Your task to perform on an android device: Add "macbook pro 15 inch" to the cart on costco.com, then select checkout. Image 0: 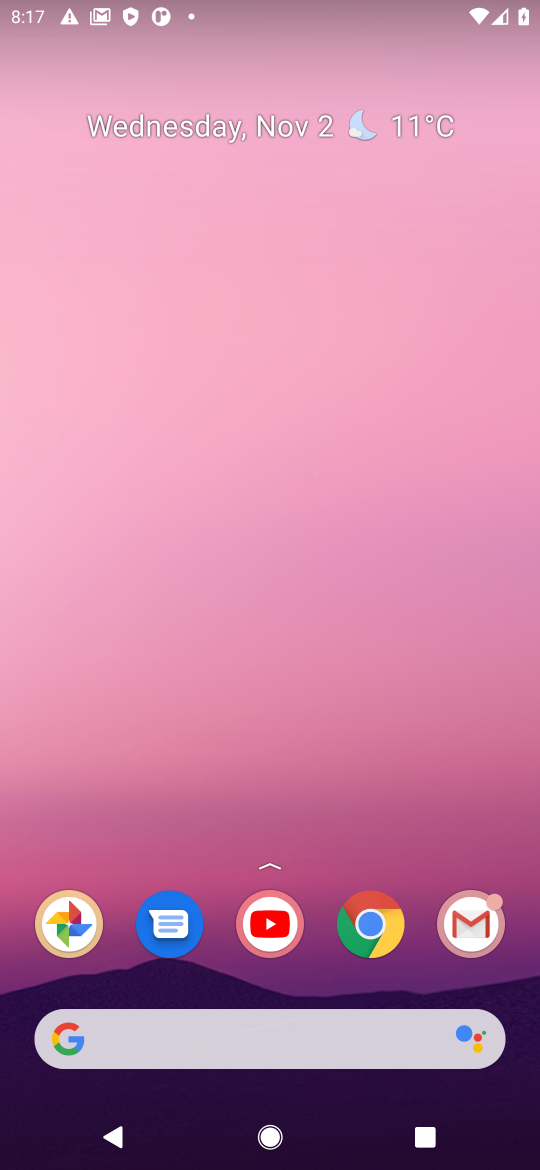
Step 0: press home button
Your task to perform on an android device: Add "macbook pro 15 inch" to the cart on costco.com, then select checkout. Image 1: 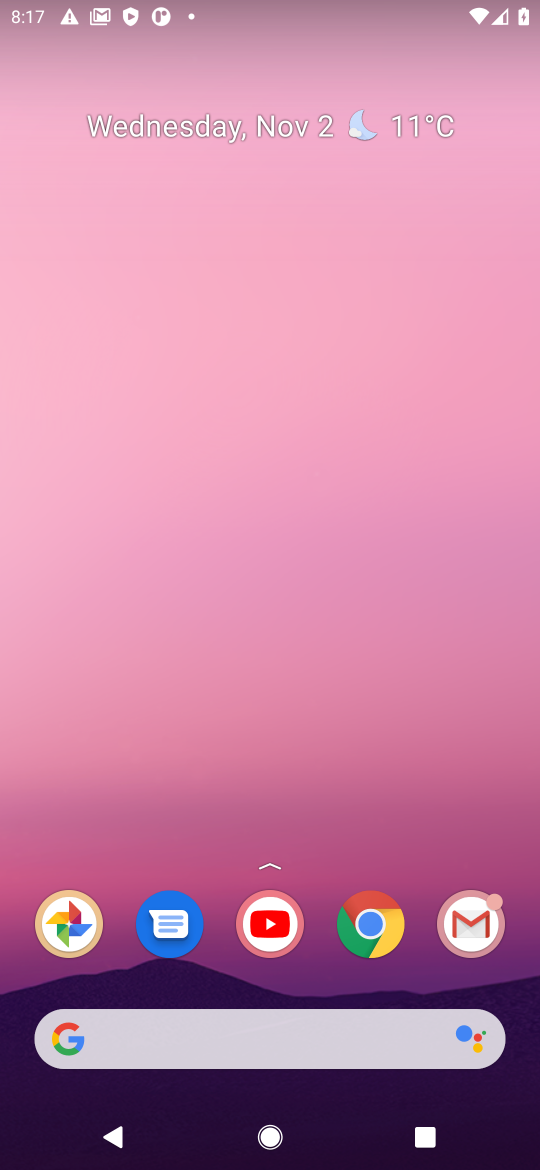
Step 1: click (380, 923)
Your task to perform on an android device: Add "macbook pro 15 inch" to the cart on costco.com, then select checkout. Image 2: 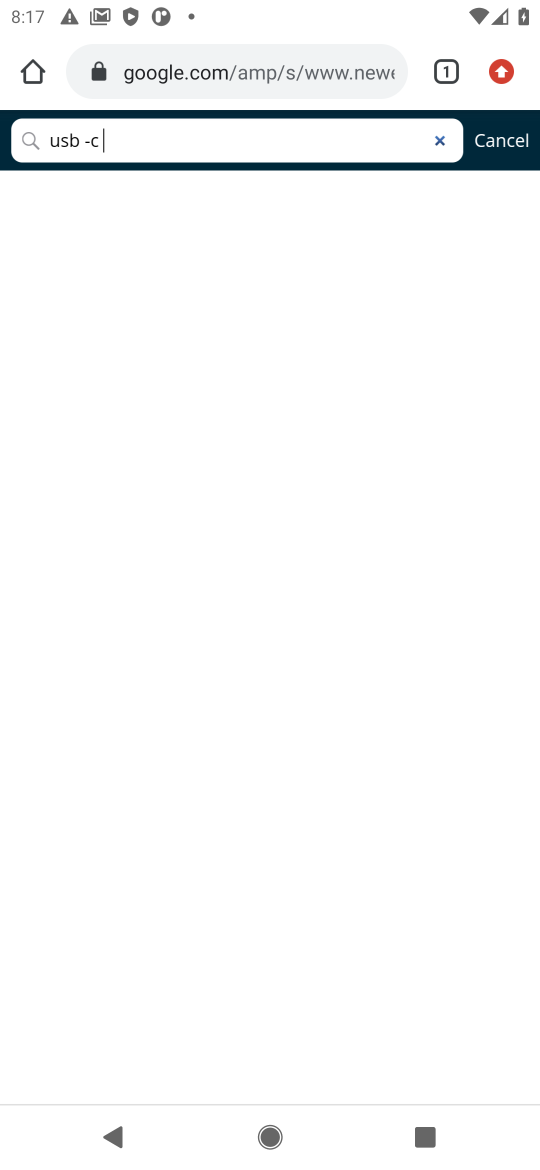
Step 2: click (221, 66)
Your task to perform on an android device: Add "macbook pro 15 inch" to the cart on costco.com, then select checkout. Image 3: 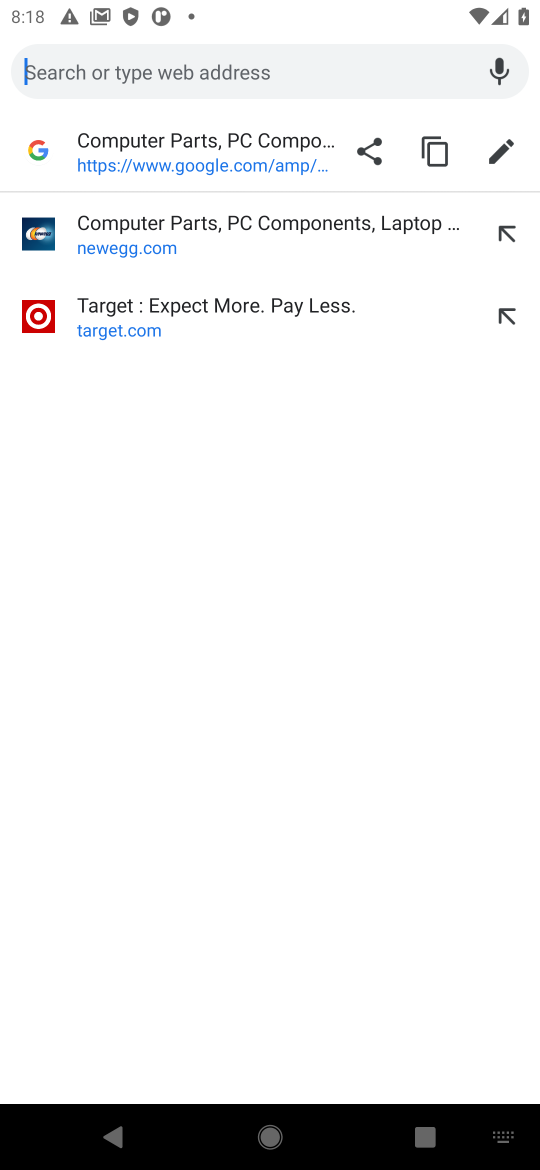
Step 3: type "costco"
Your task to perform on an android device: Add "macbook pro 15 inch" to the cart on costco.com, then select checkout. Image 4: 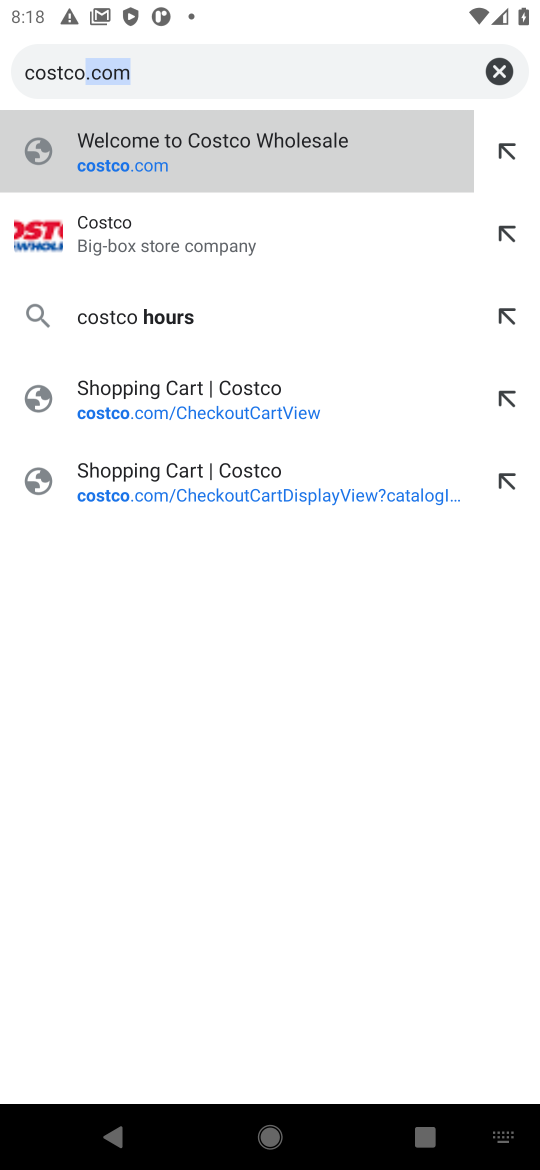
Step 4: type ""
Your task to perform on an android device: Add "macbook pro 15 inch" to the cart on costco.com, then select checkout. Image 5: 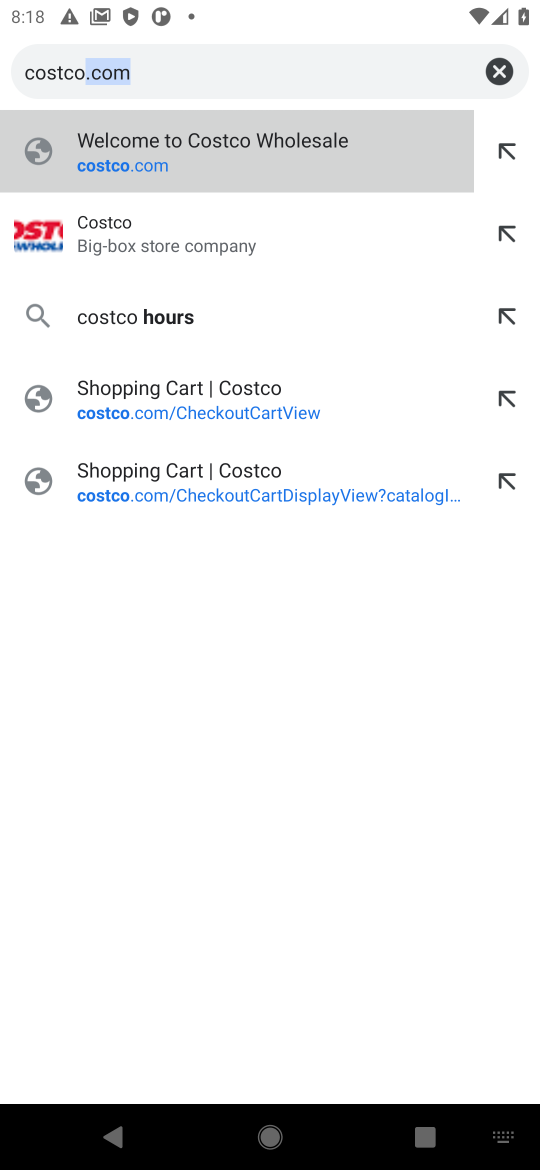
Step 5: click (49, 241)
Your task to perform on an android device: Add "macbook pro 15 inch" to the cart on costco.com, then select checkout. Image 6: 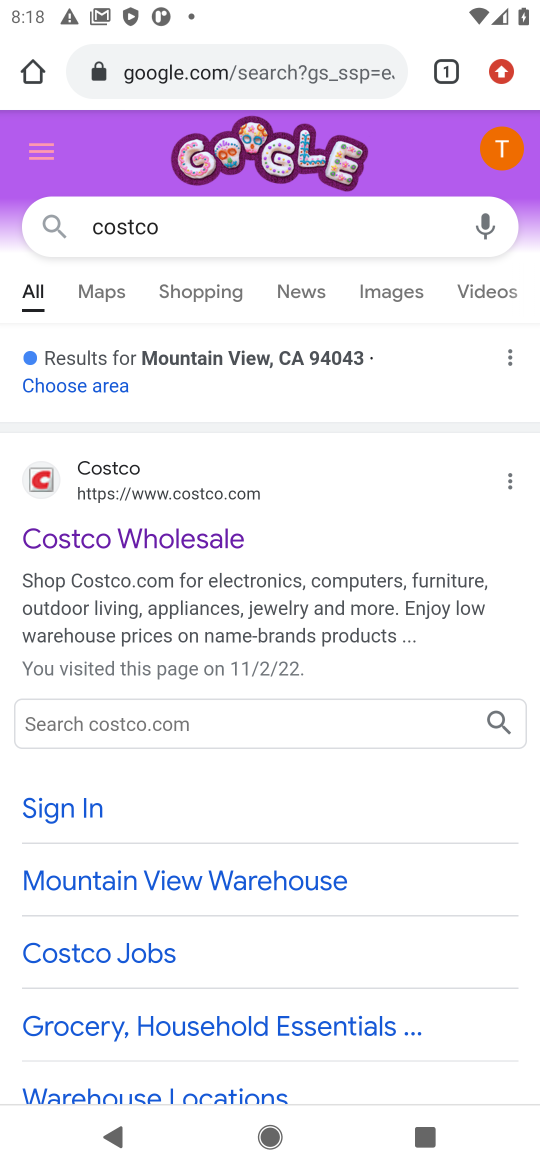
Step 6: click (135, 536)
Your task to perform on an android device: Add "macbook pro 15 inch" to the cart on costco.com, then select checkout. Image 7: 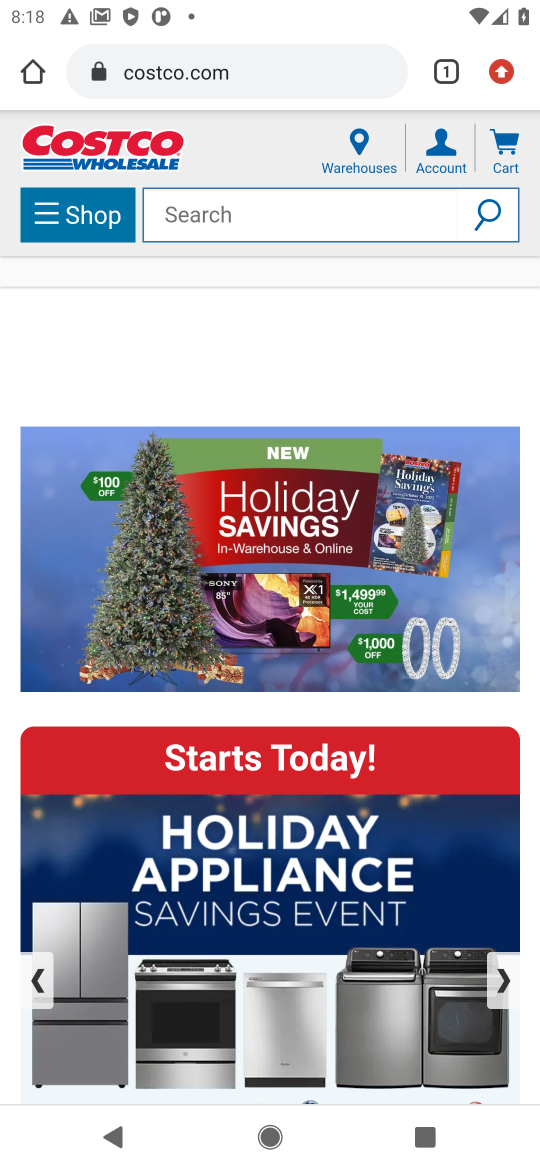
Step 7: click (169, 221)
Your task to perform on an android device: Add "macbook pro 15 inch" to the cart on costco.com, then select checkout. Image 8: 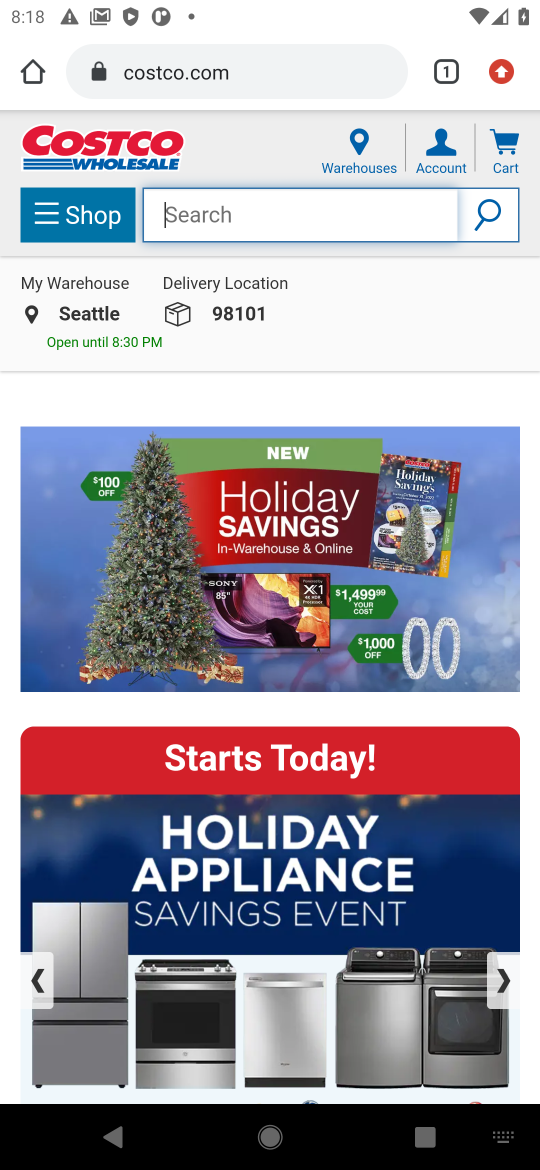
Step 8: type "macbook pro 15 inch"
Your task to perform on an android device: Add "macbook pro 15 inch" to the cart on costco.com, then select checkout. Image 9: 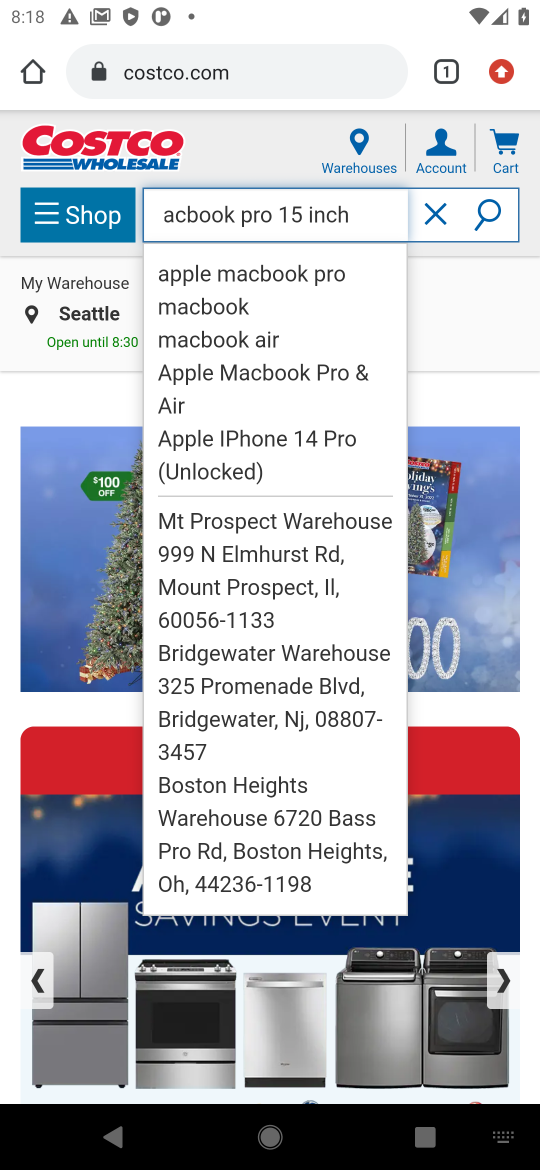
Step 9: click (238, 374)
Your task to perform on an android device: Add "macbook pro 15 inch" to the cart on costco.com, then select checkout. Image 10: 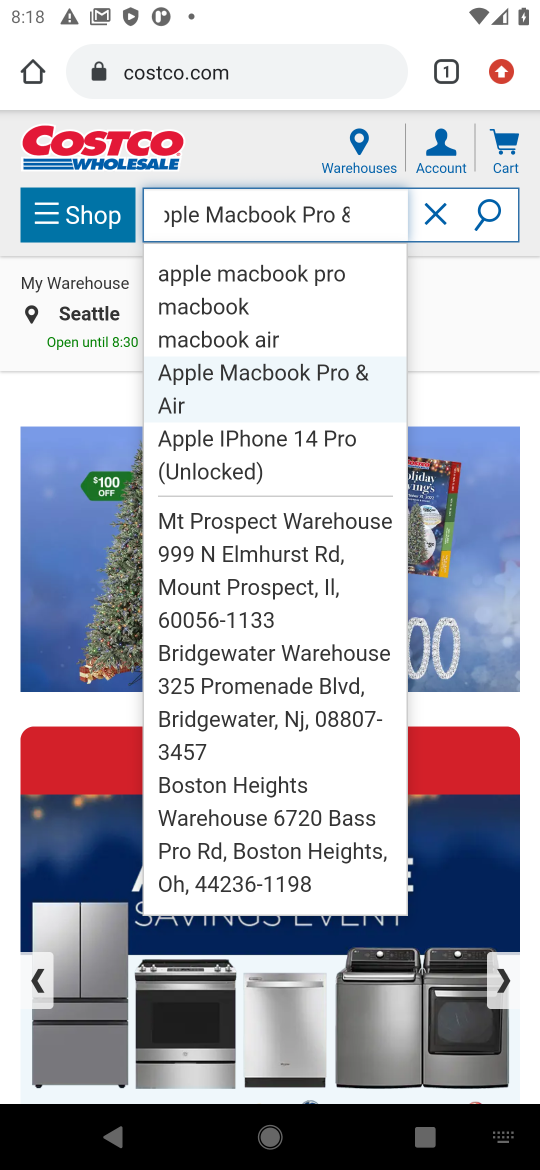
Step 10: click (238, 374)
Your task to perform on an android device: Add "macbook pro 15 inch" to the cart on costco.com, then select checkout. Image 11: 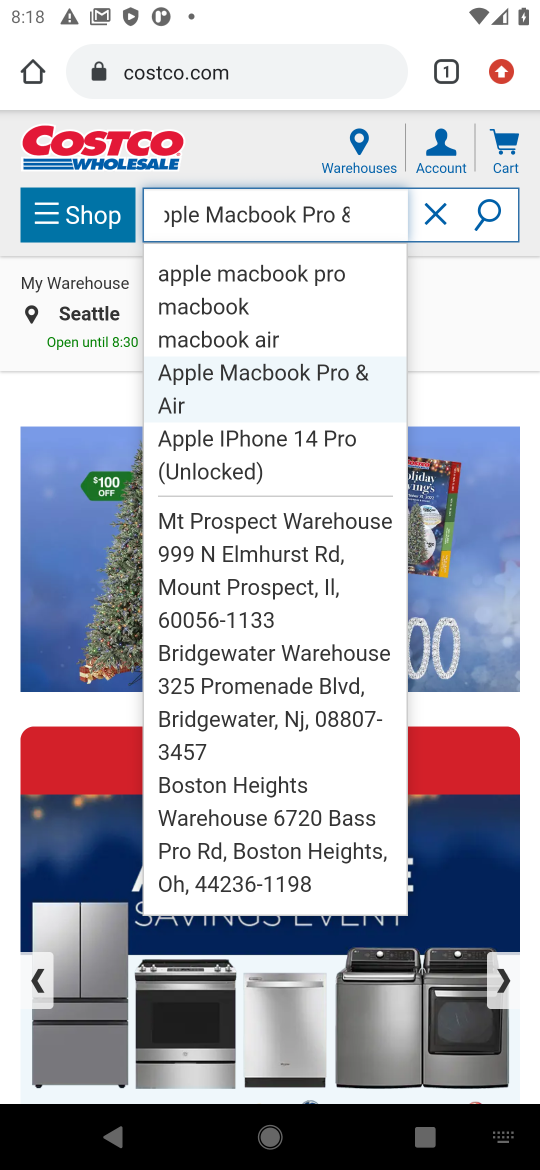
Step 11: click (189, 393)
Your task to perform on an android device: Add "macbook pro 15 inch" to the cart on costco.com, then select checkout. Image 12: 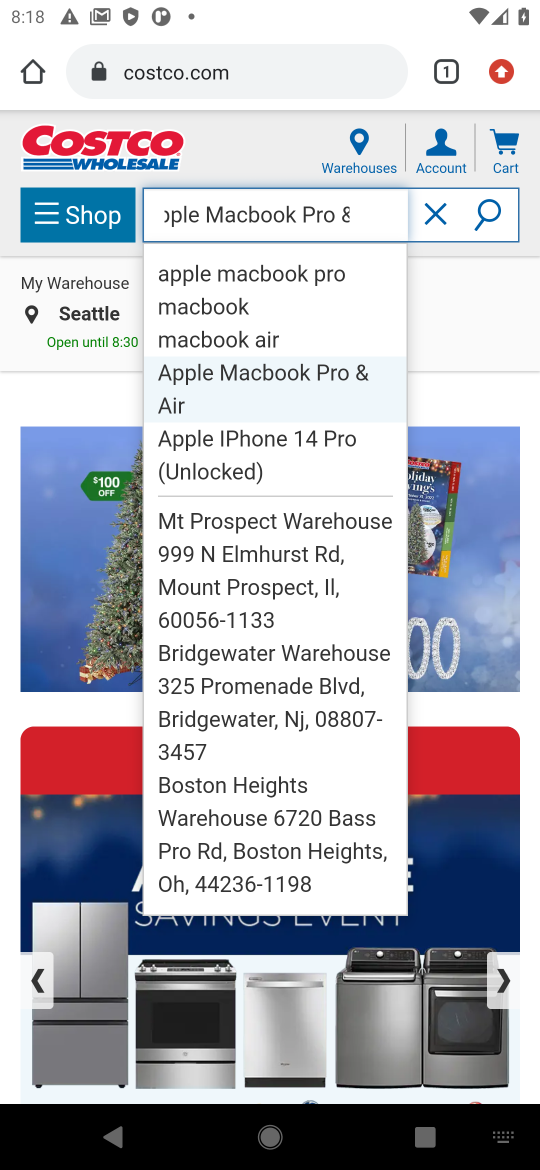
Step 12: click (214, 277)
Your task to perform on an android device: Add "macbook pro 15 inch" to the cart on costco.com, then select checkout. Image 13: 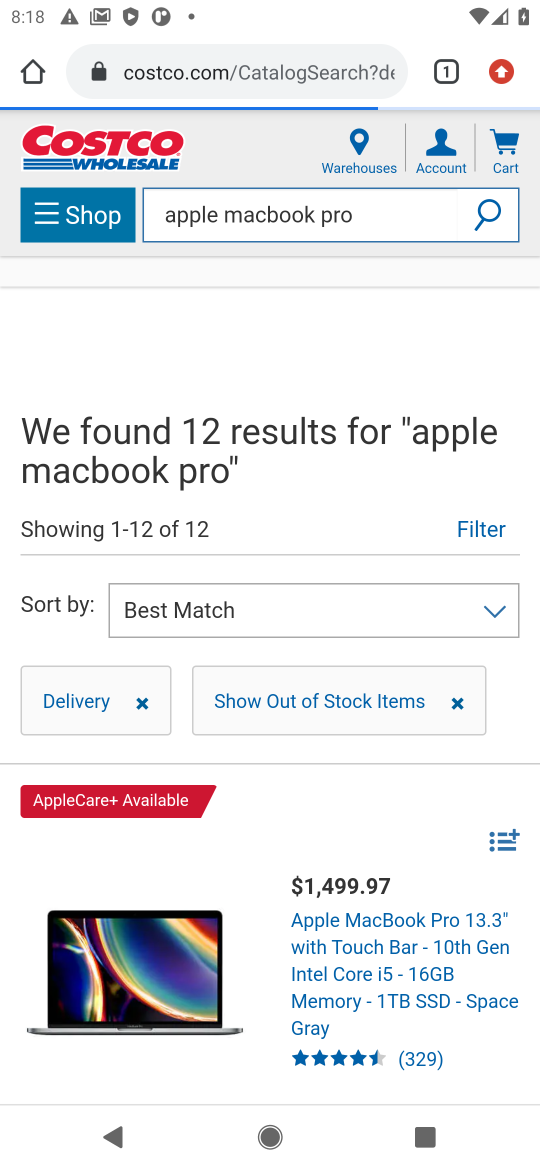
Step 13: drag from (223, 829) to (196, 76)
Your task to perform on an android device: Add "macbook pro 15 inch" to the cart on costco.com, then select checkout. Image 14: 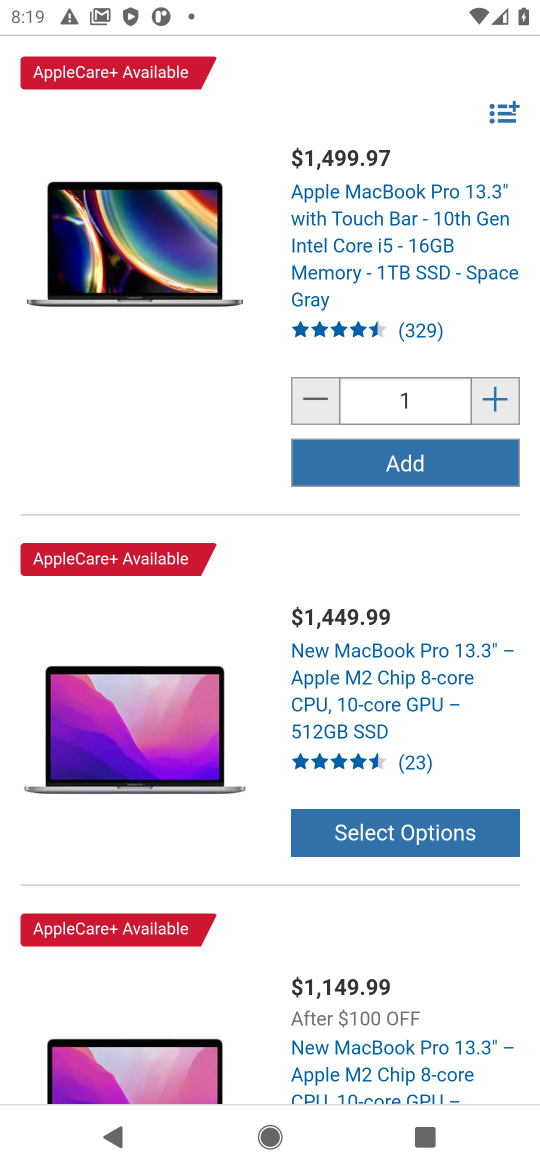
Step 14: drag from (195, 829) to (390, 215)
Your task to perform on an android device: Add "macbook pro 15 inch" to the cart on costco.com, then select checkout. Image 15: 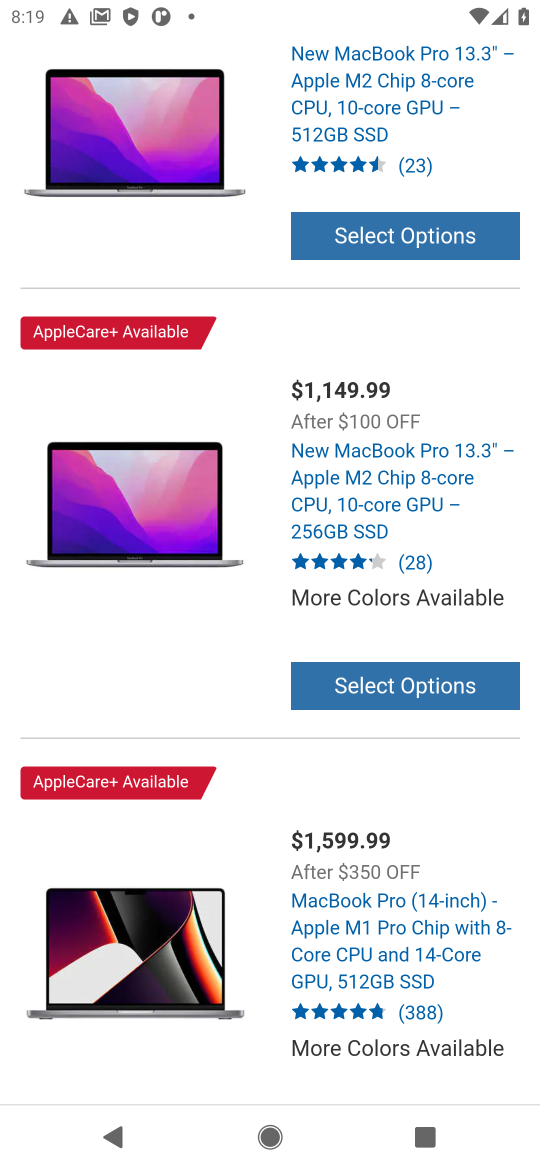
Step 15: click (351, 490)
Your task to perform on an android device: Add "macbook pro 15 inch" to the cart on costco.com, then select checkout. Image 16: 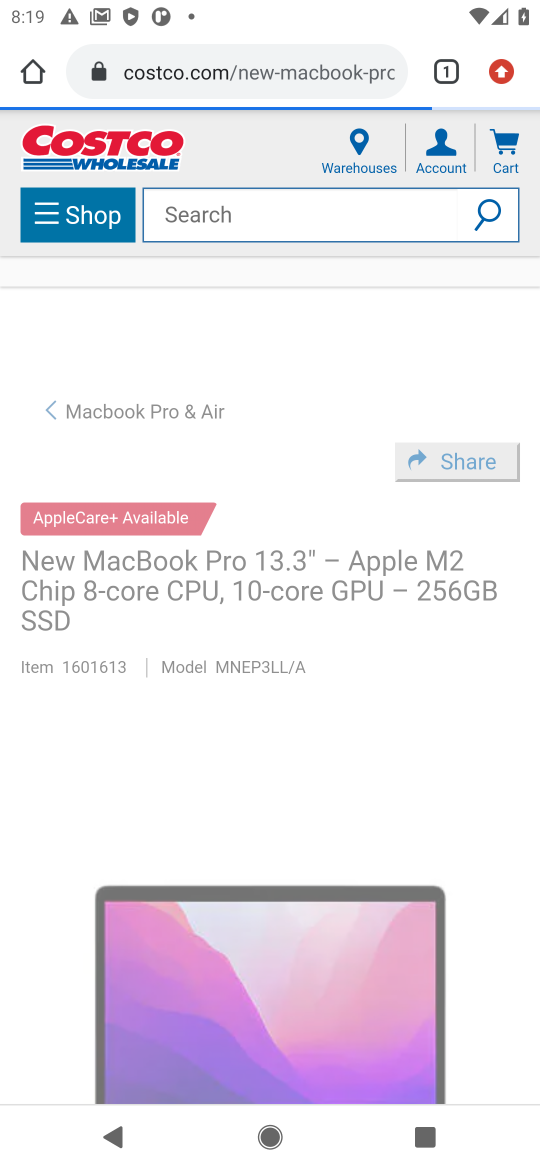
Step 16: drag from (306, 771) to (59, 285)
Your task to perform on an android device: Add "macbook pro 15 inch" to the cart on costco.com, then select checkout. Image 17: 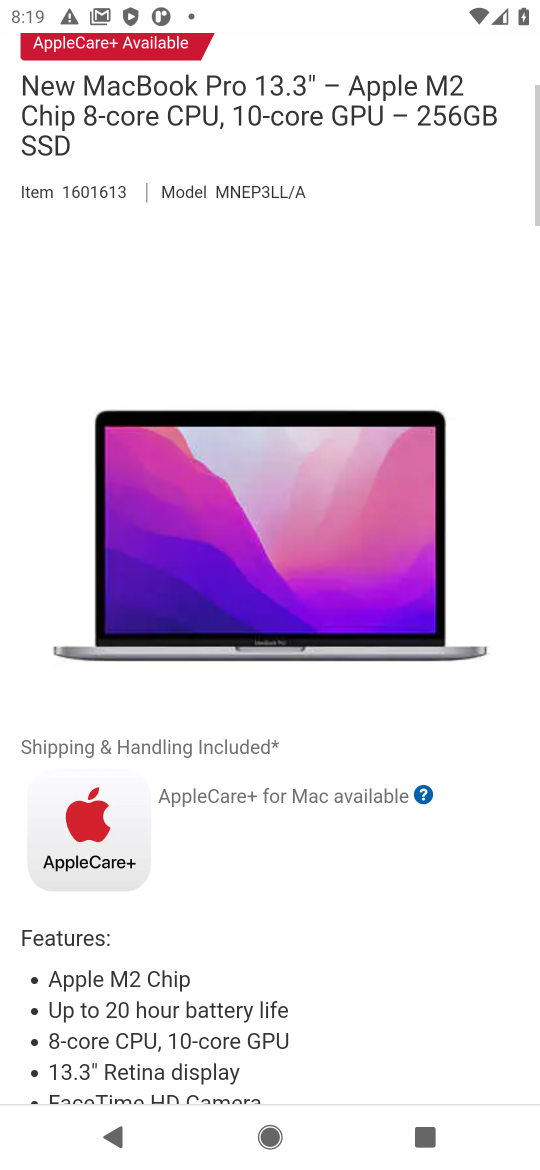
Step 17: drag from (316, 888) to (320, 69)
Your task to perform on an android device: Add "macbook pro 15 inch" to the cart on costco.com, then select checkout. Image 18: 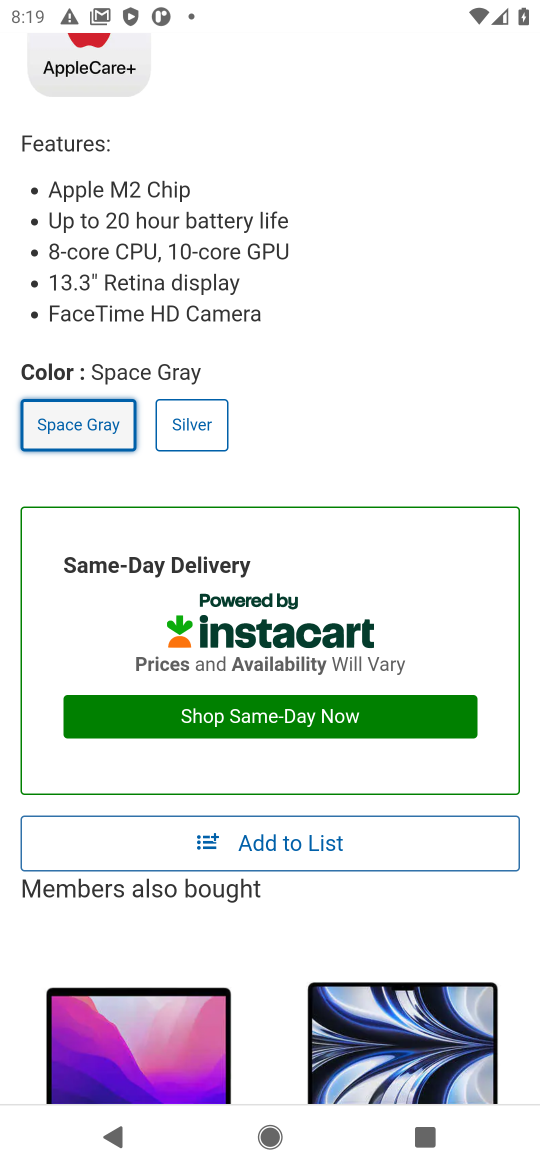
Step 18: click (258, 828)
Your task to perform on an android device: Add "macbook pro 15 inch" to the cart on costco.com, then select checkout. Image 19: 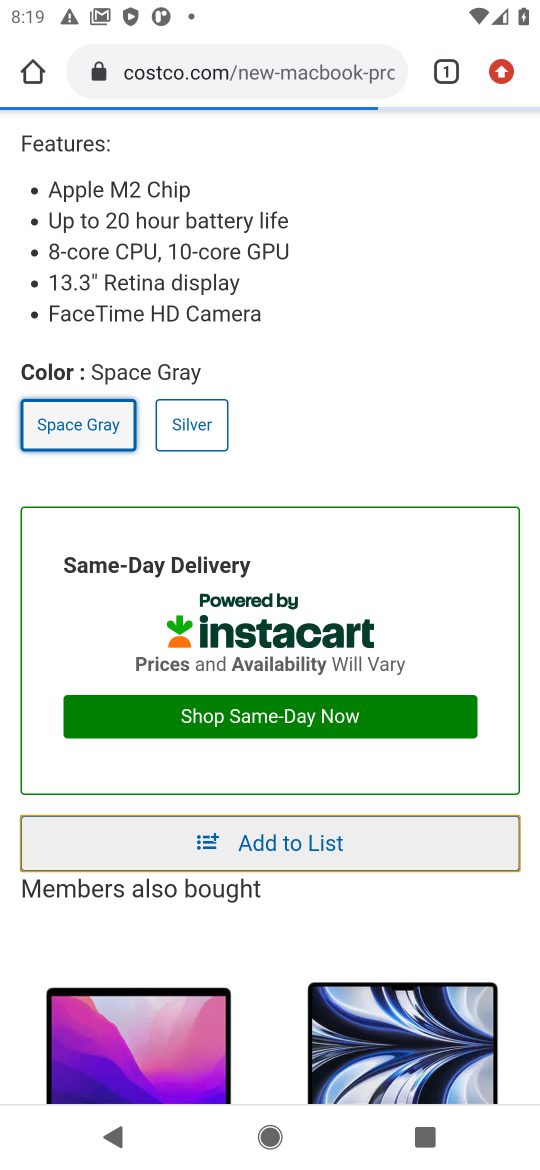
Step 19: click (313, 848)
Your task to perform on an android device: Add "macbook pro 15 inch" to the cart on costco.com, then select checkout. Image 20: 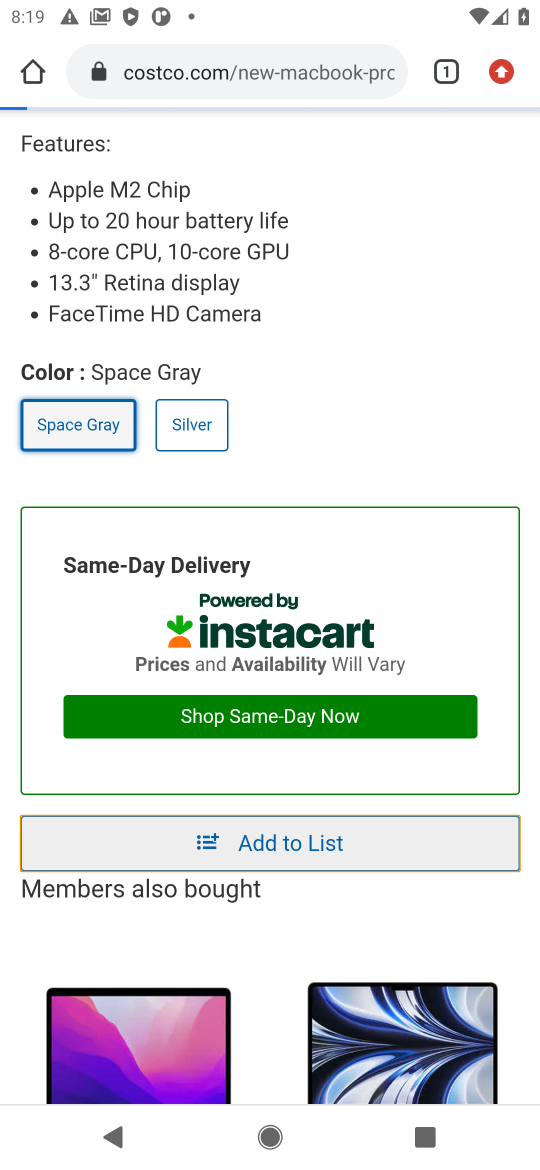
Step 20: drag from (400, 282) to (369, 1038)
Your task to perform on an android device: Add "macbook pro 15 inch" to the cart on costco.com, then select checkout. Image 21: 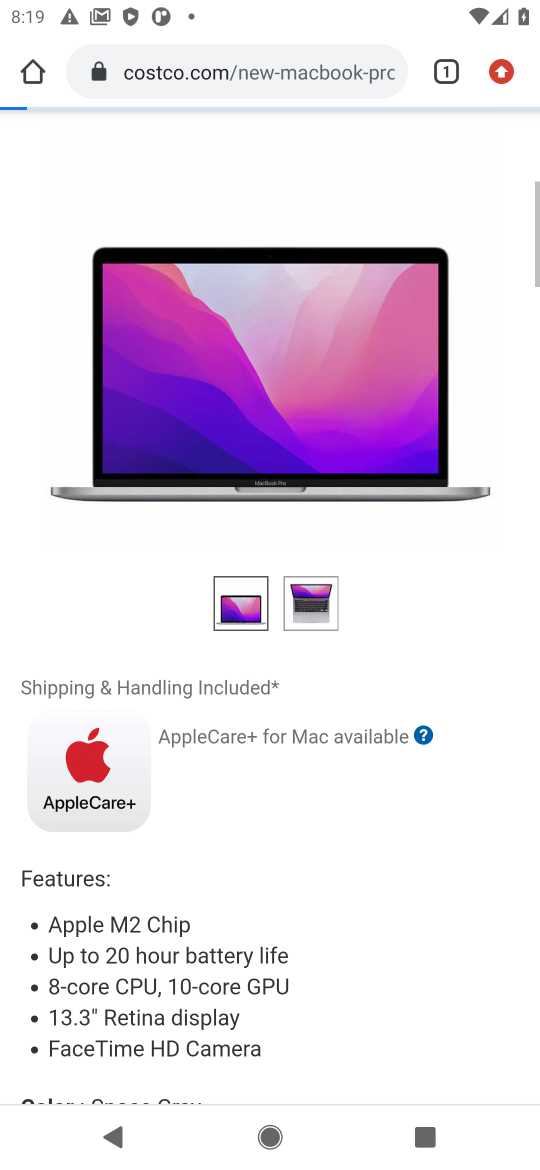
Step 21: drag from (370, 451) to (278, 1065)
Your task to perform on an android device: Add "macbook pro 15 inch" to the cart on costco.com, then select checkout. Image 22: 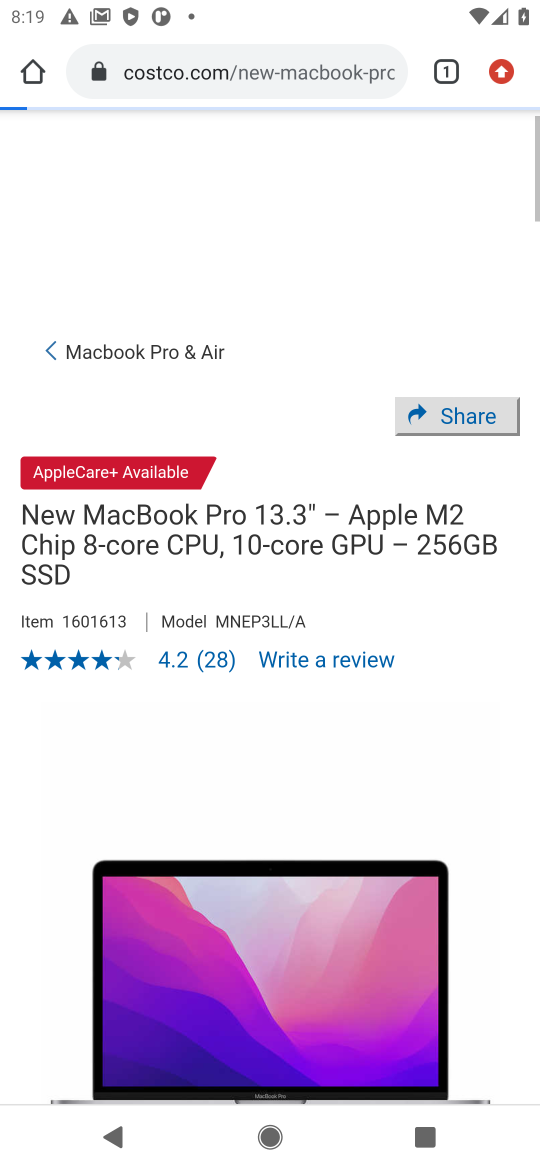
Step 22: drag from (264, 523) to (262, 956)
Your task to perform on an android device: Add "macbook pro 15 inch" to the cart on costco.com, then select checkout. Image 23: 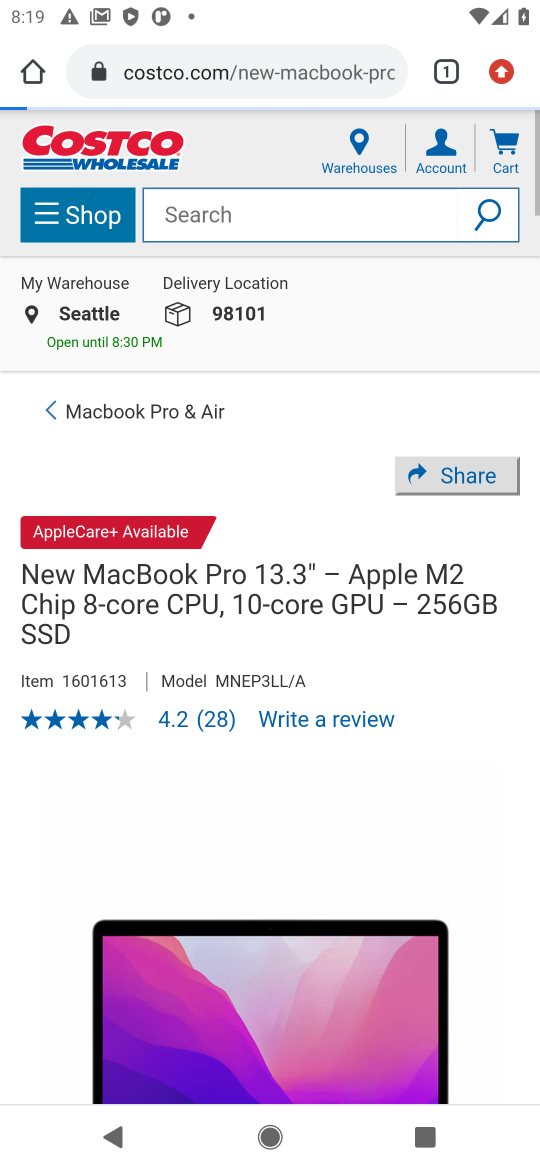
Step 23: drag from (387, 425) to (370, 755)
Your task to perform on an android device: Add "macbook pro 15 inch" to the cart on costco.com, then select checkout. Image 24: 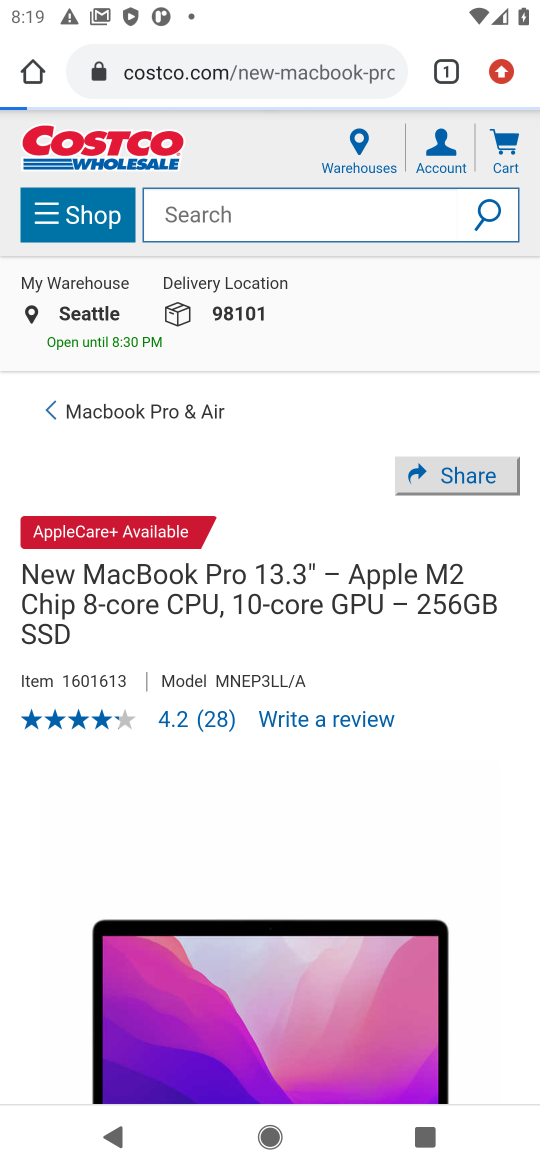
Step 24: click (496, 135)
Your task to perform on an android device: Add "macbook pro 15 inch" to the cart on costco.com, then select checkout. Image 25: 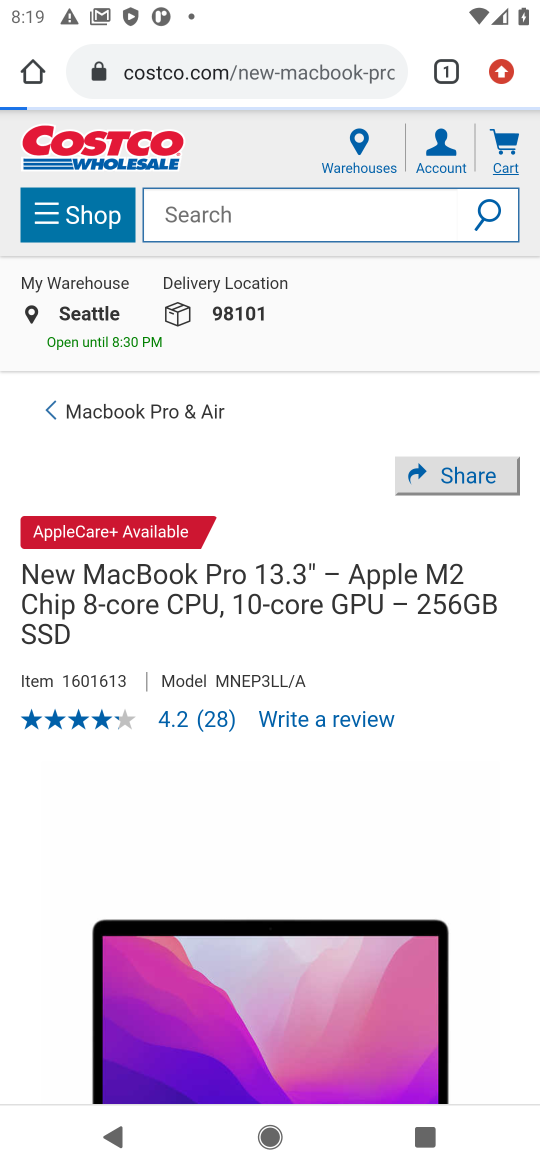
Step 25: task complete